Your task to perform on an android device: Open settings Image 0: 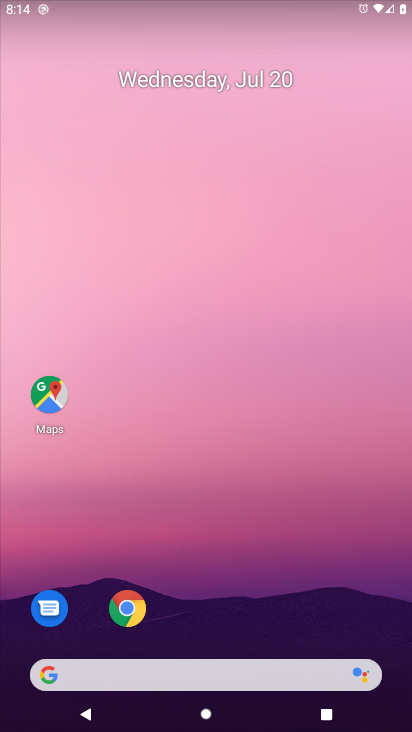
Step 0: drag from (225, 633) to (292, 42)
Your task to perform on an android device: Open settings Image 1: 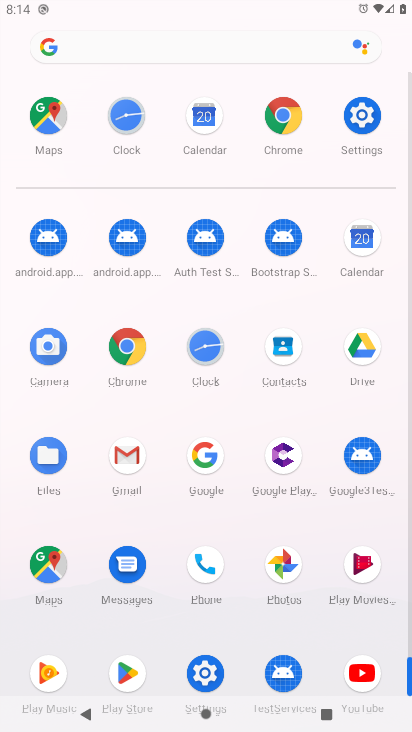
Step 1: click (201, 667)
Your task to perform on an android device: Open settings Image 2: 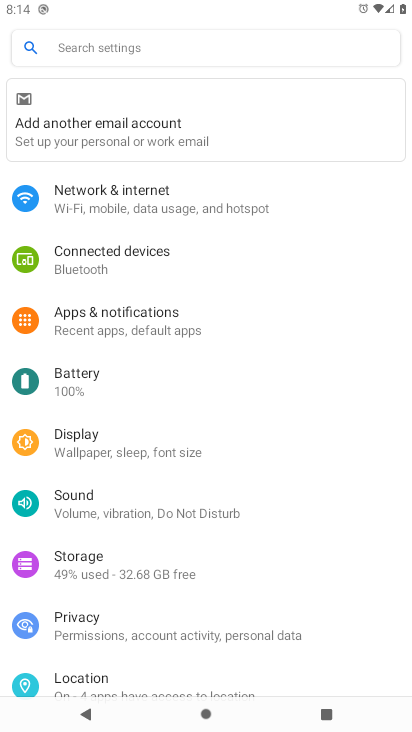
Step 2: task complete